Your task to perform on an android device: Go to calendar. Show me events next week Image 0: 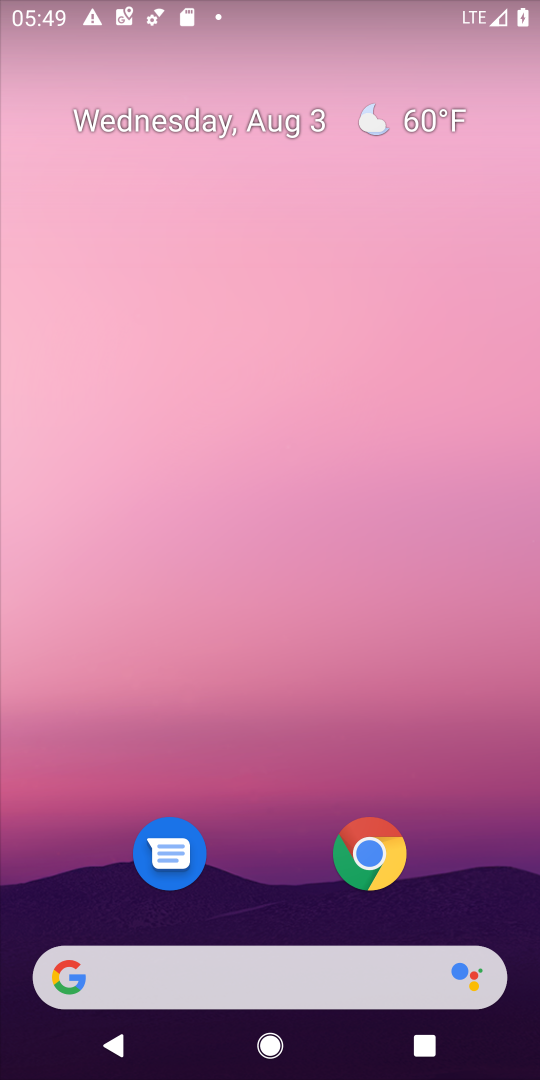
Step 0: drag from (280, 913) to (279, 206)
Your task to perform on an android device: Go to calendar. Show me events next week Image 1: 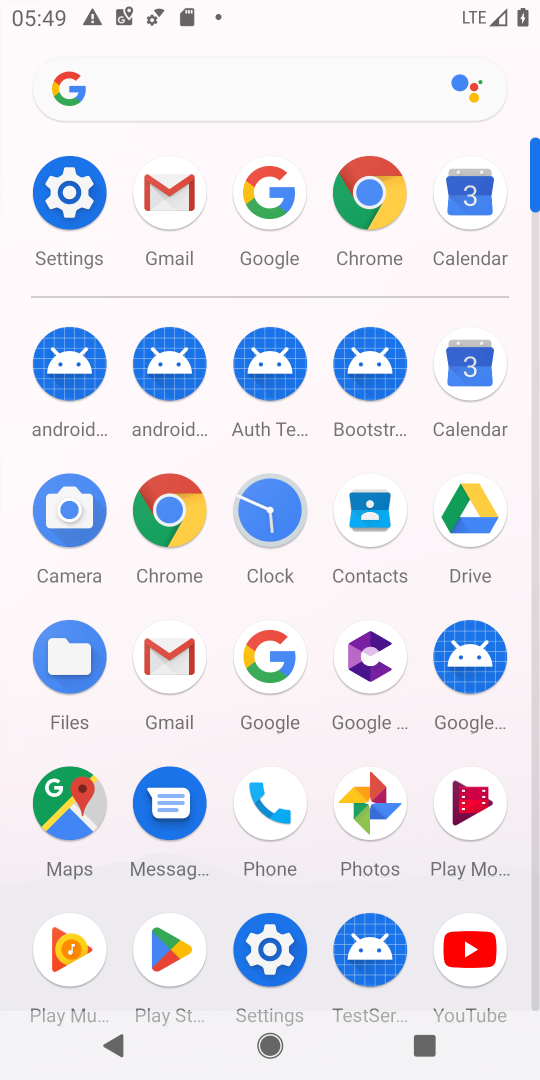
Step 1: click (468, 374)
Your task to perform on an android device: Go to calendar. Show me events next week Image 2: 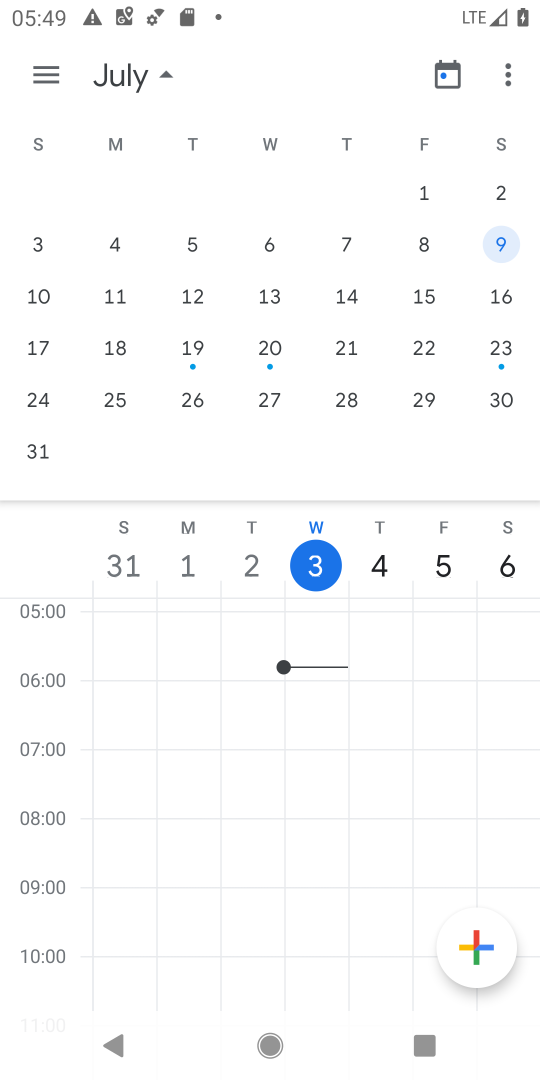
Step 2: click (121, 296)
Your task to perform on an android device: Go to calendar. Show me events next week Image 3: 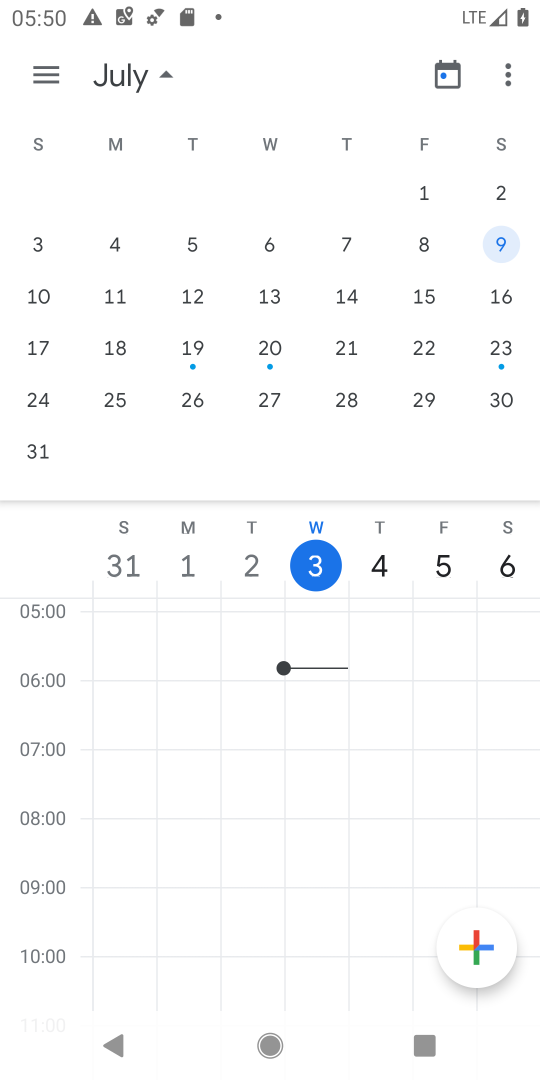
Step 3: click (118, 360)
Your task to perform on an android device: Go to calendar. Show me events next week Image 4: 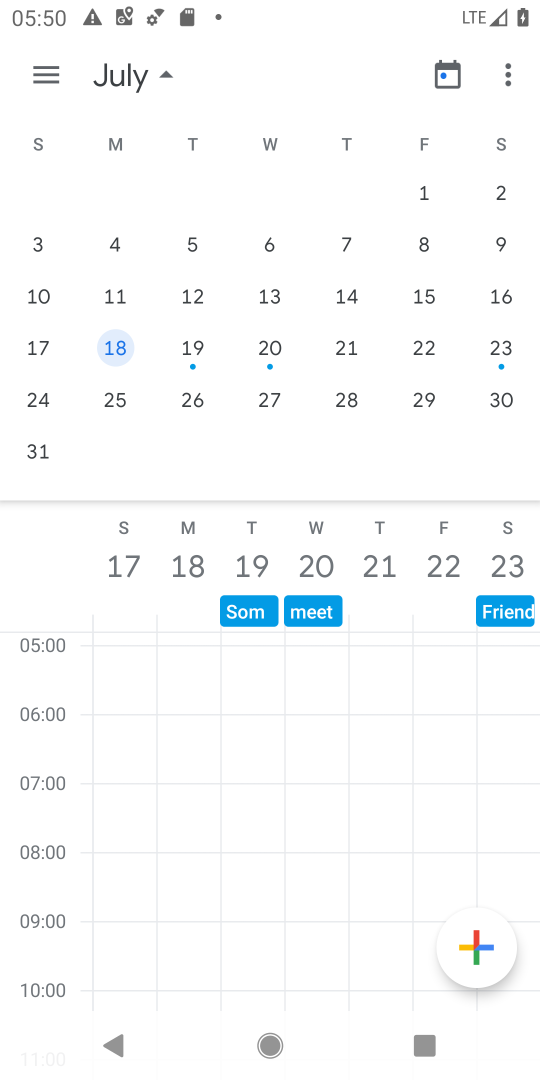
Step 4: click (47, 65)
Your task to perform on an android device: Go to calendar. Show me events next week Image 5: 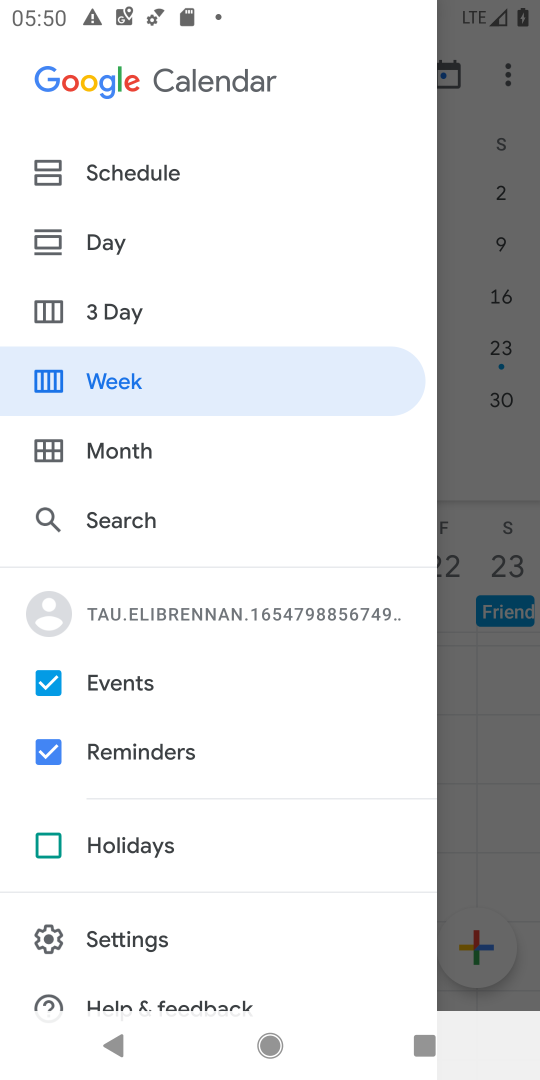
Step 5: click (56, 750)
Your task to perform on an android device: Go to calendar. Show me events next week Image 6: 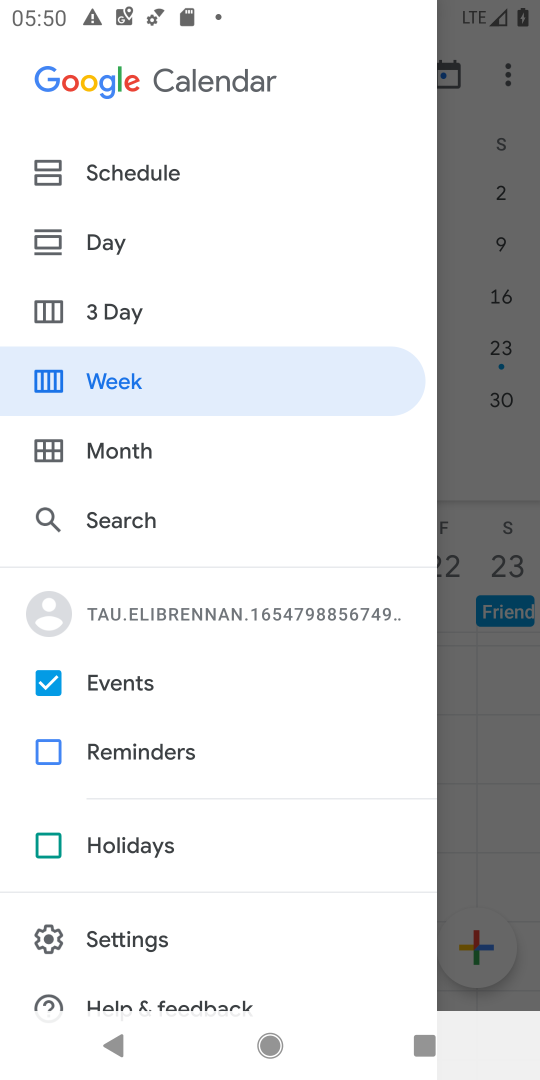
Step 6: click (149, 367)
Your task to perform on an android device: Go to calendar. Show me events next week Image 7: 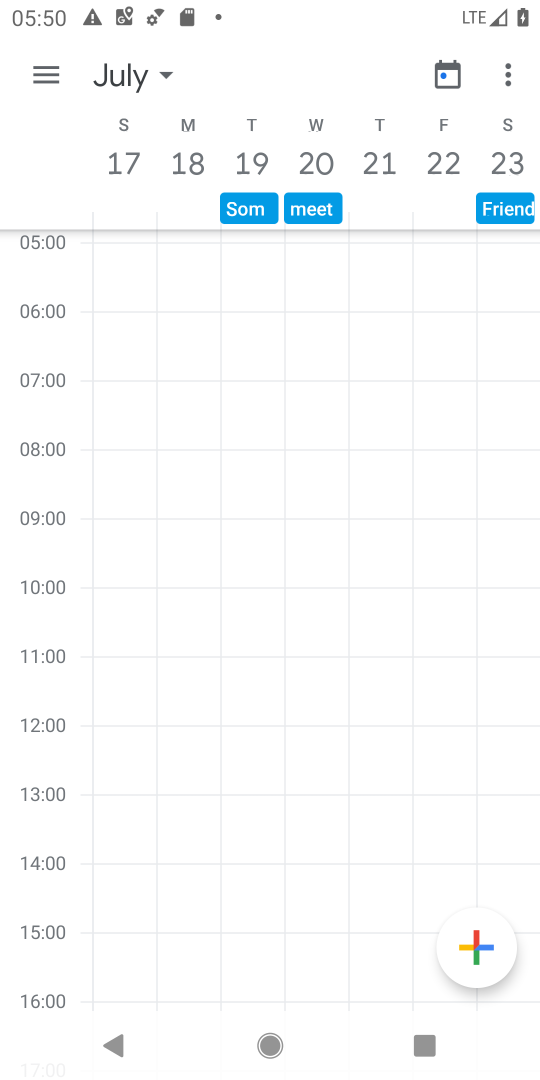
Step 7: task complete